Your task to perform on an android device: turn on sleep mode Image 0: 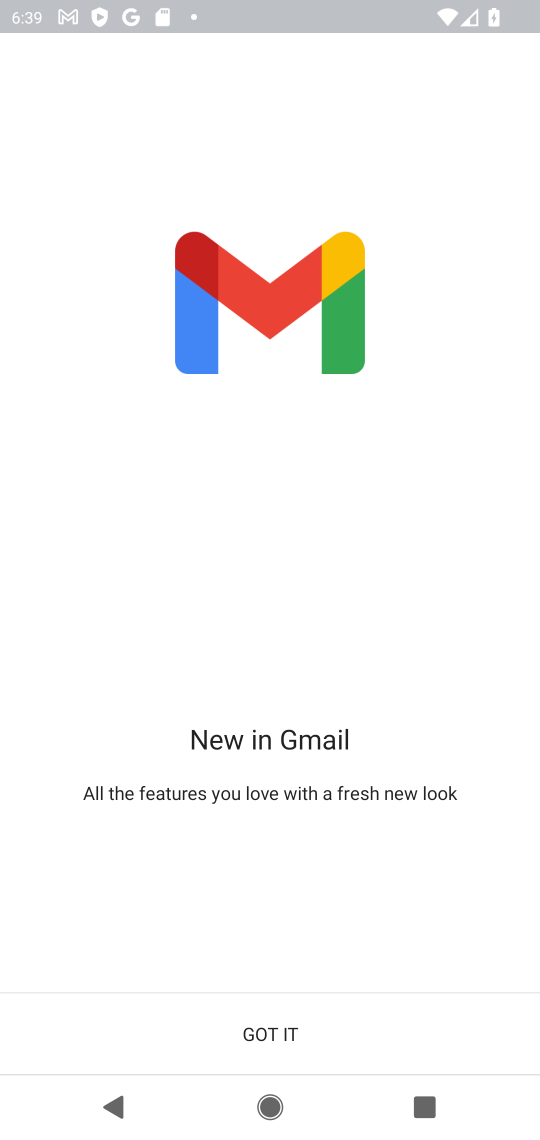
Step 0: press home button
Your task to perform on an android device: turn on sleep mode Image 1: 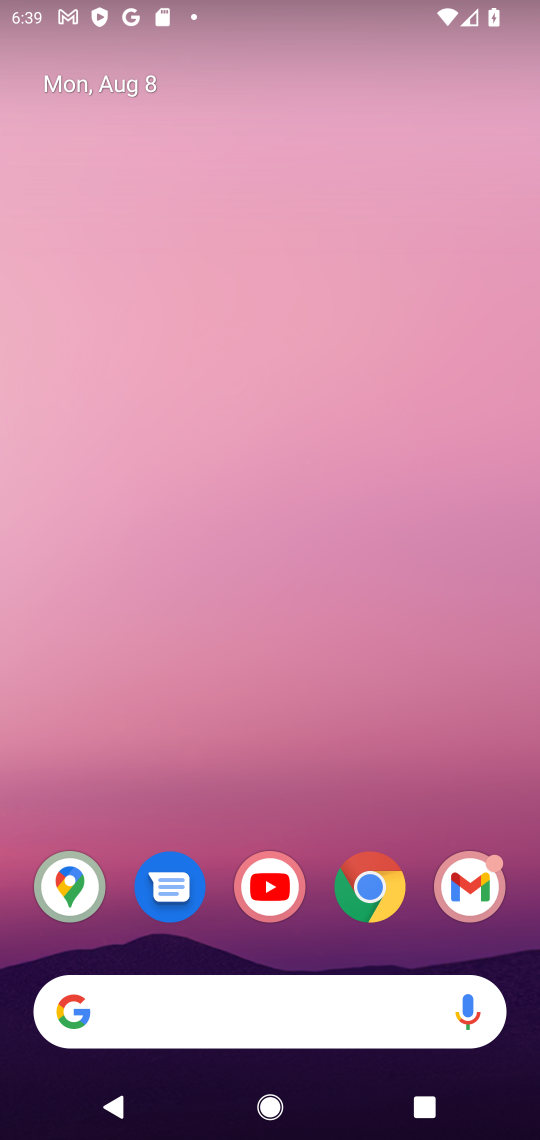
Step 1: drag from (342, 790) to (213, 204)
Your task to perform on an android device: turn on sleep mode Image 2: 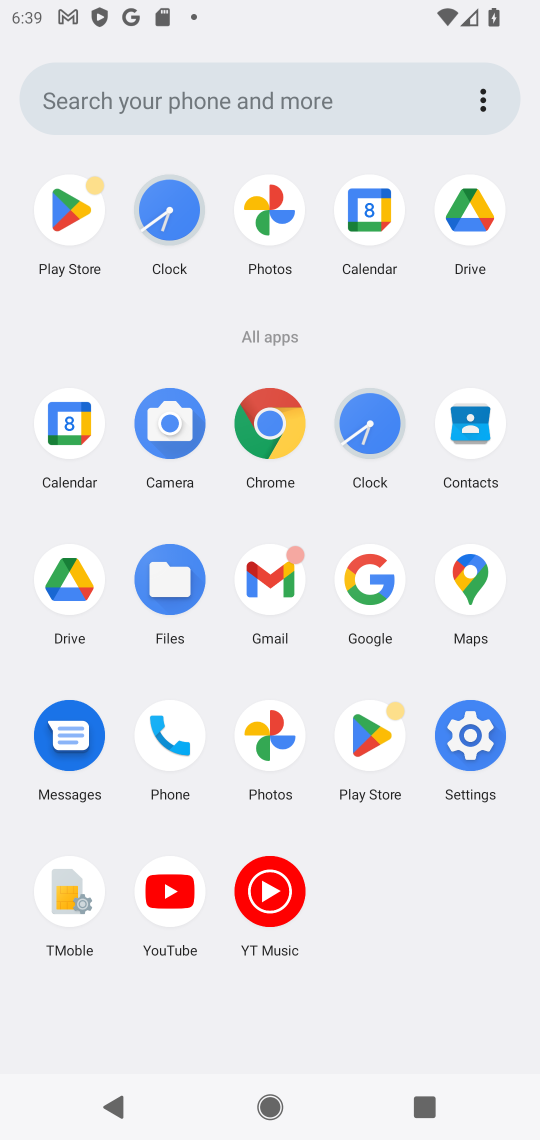
Step 2: click (494, 750)
Your task to perform on an android device: turn on sleep mode Image 3: 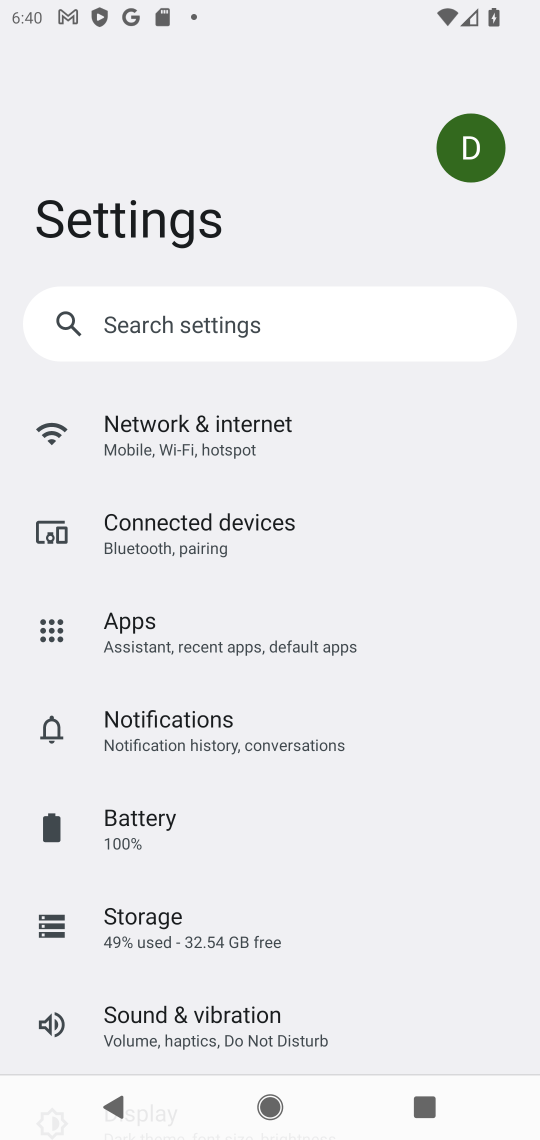
Step 3: drag from (407, 1012) to (346, 395)
Your task to perform on an android device: turn on sleep mode Image 4: 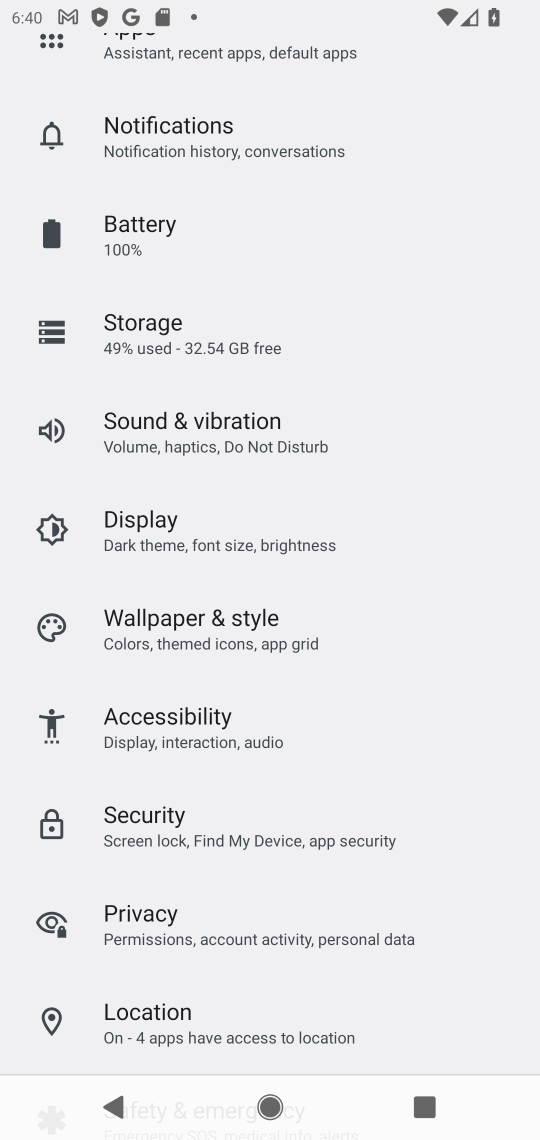
Step 4: click (317, 529)
Your task to perform on an android device: turn on sleep mode Image 5: 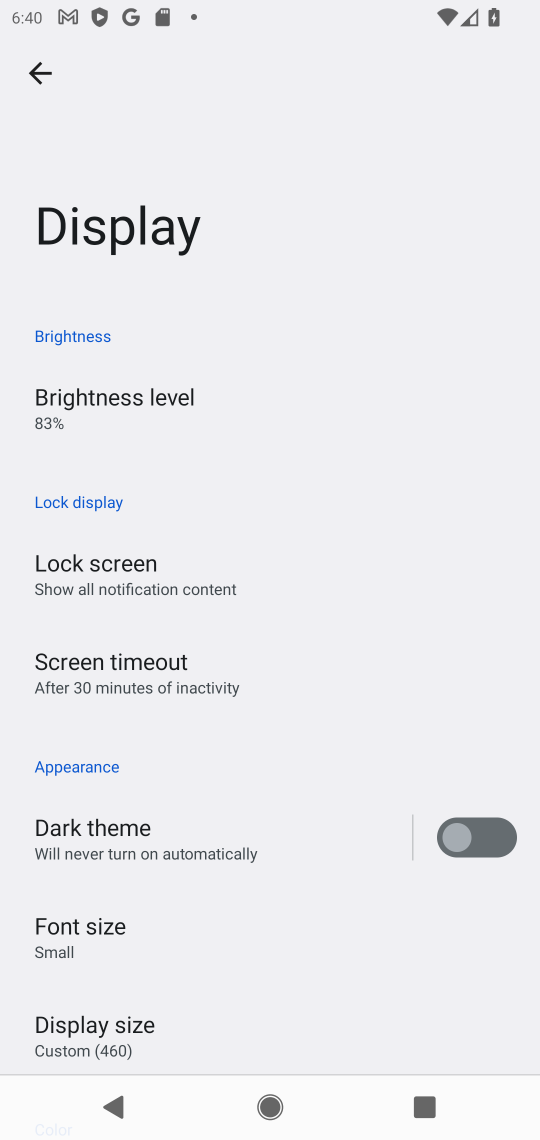
Step 5: task complete